Your task to perform on an android device: Open location settings Image 0: 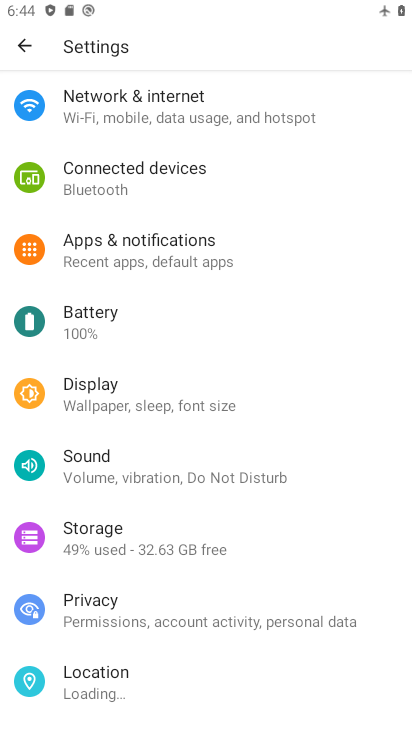
Step 0: press home button
Your task to perform on an android device: Open location settings Image 1: 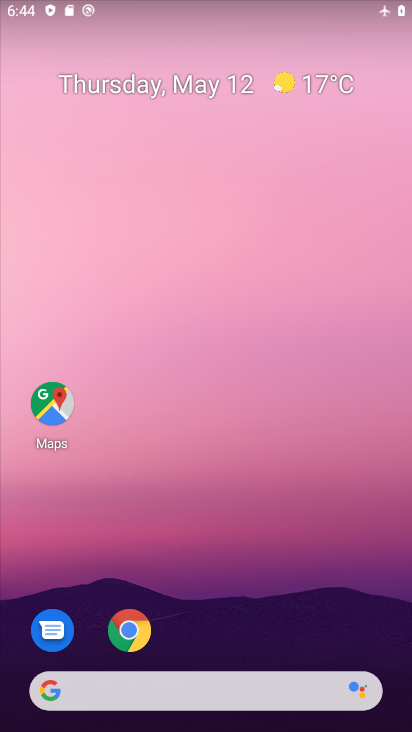
Step 1: drag from (365, 628) to (275, 34)
Your task to perform on an android device: Open location settings Image 2: 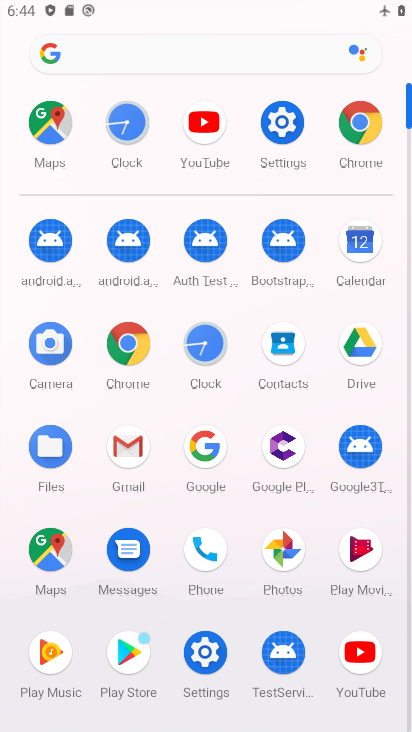
Step 2: click (204, 659)
Your task to perform on an android device: Open location settings Image 3: 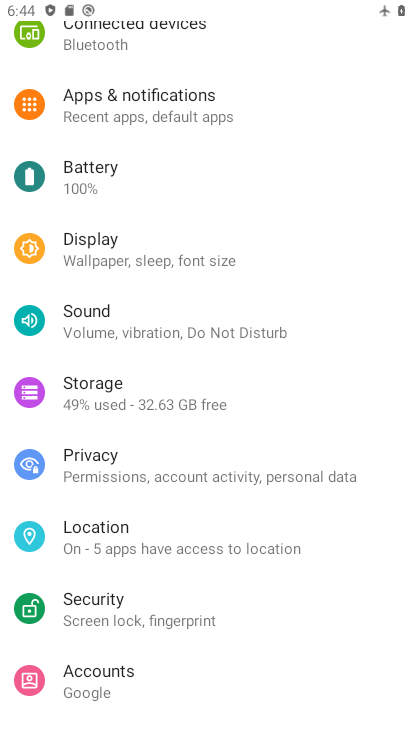
Step 3: click (146, 568)
Your task to perform on an android device: Open location settings Image 4: 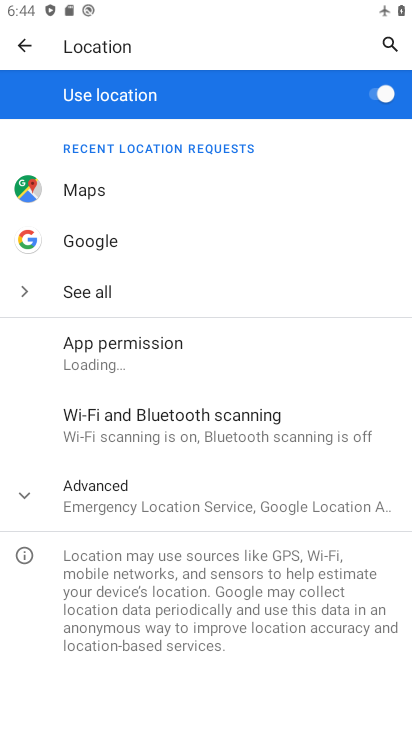
Step 4: task complete